Your task to perform on an android device: Is it going to rain tomorrow? Image 0: 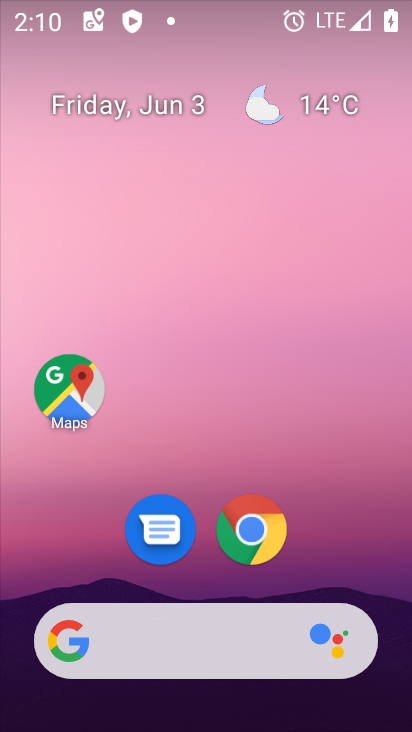
Step 0: click (310, 104)
Your task to perform on an android device: Is it going to rain tomorrow? Image 1: 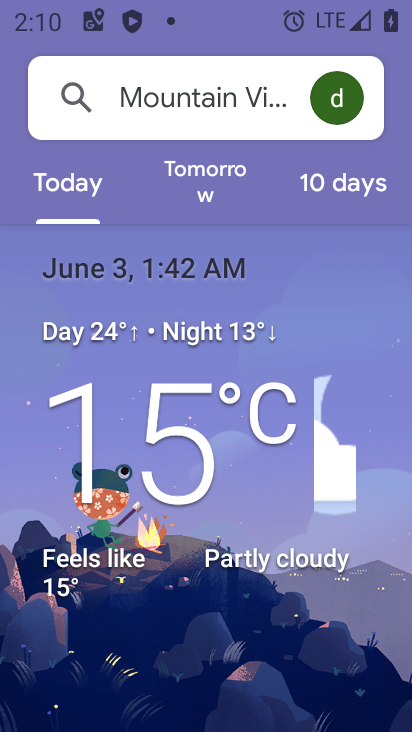
Step 1: click (211, 187)
Your task to perform on an android device: Is it going to rain tomorrow? Image 2: 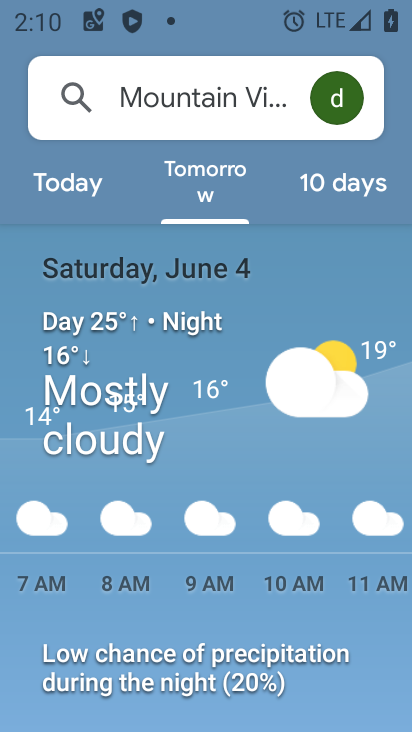
Step 2: task complete